Your task to perform on an android device: Open the web browser Image 0: 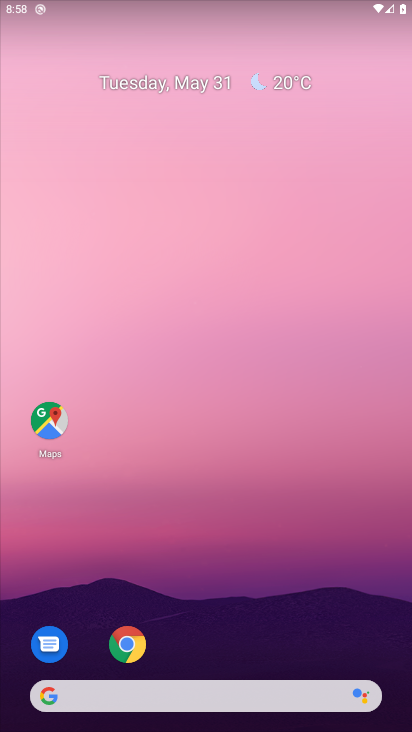
Step 0: press home button
Your task to perform on an android device: Open the web browser Image 1: 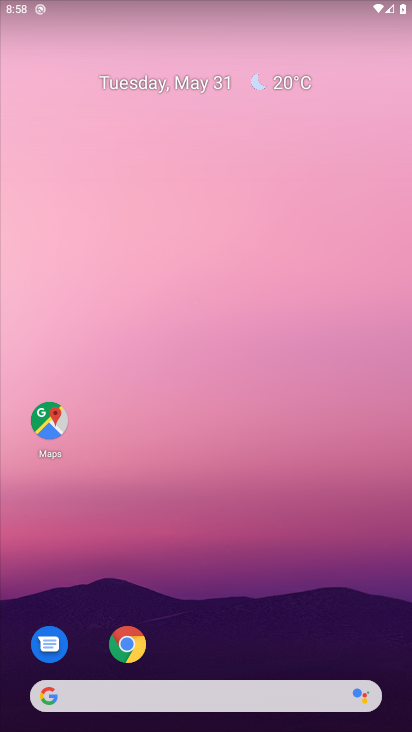
Step 1: click (121, 640)
Your task to perform on an android device: Open the web browser Image 2: 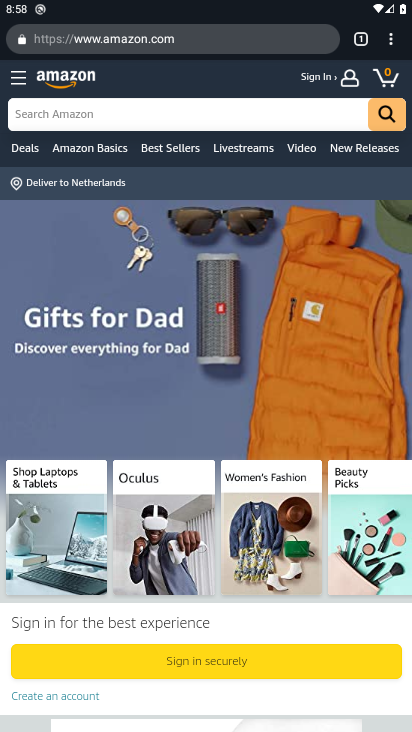
Step 2: click (360, 33)
Your task to perform on an android device: Open the web browser Image 3: 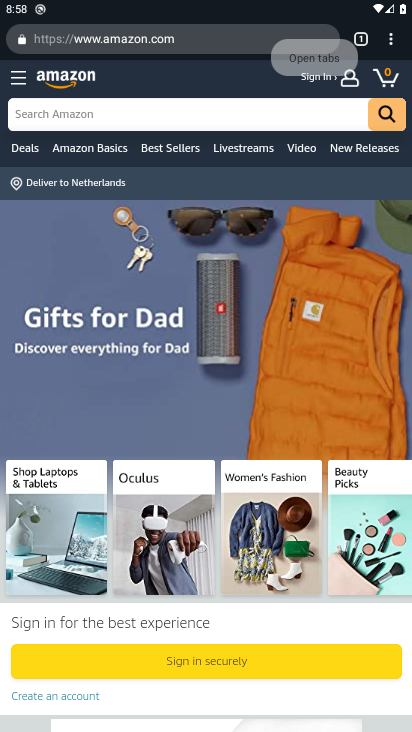
Step 3: click (363, 32)
Your task to perform on an android device: Open the web browser Image 4: 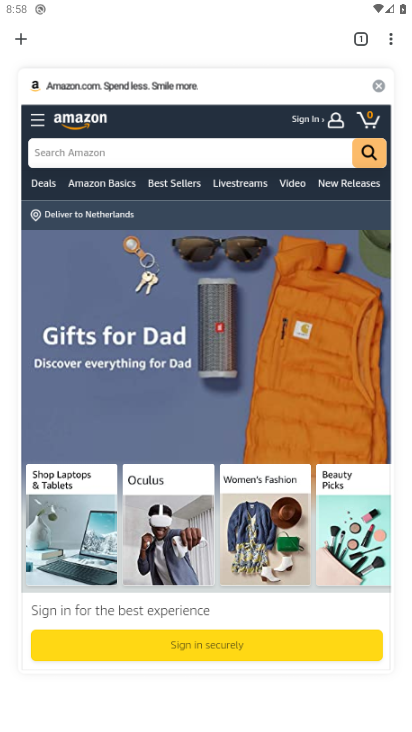
Step 4: click (377, 84)
Your task to perform on an android device: Open the web browser Image 5: 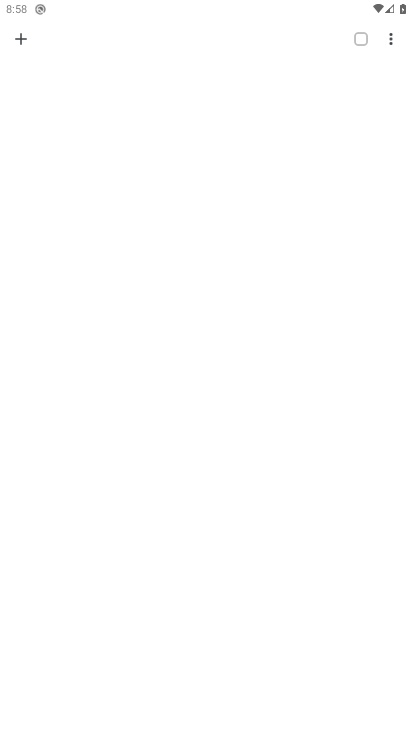
Step 5: click (28, 33)
Your task to perform on an android device: Open the web browser Image 6: 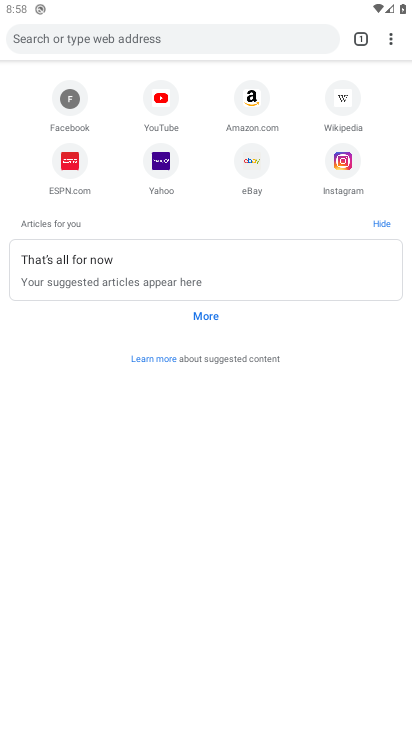
Step 6: task complete